Your task to perform on an android device: all mails in gmail Image 0: 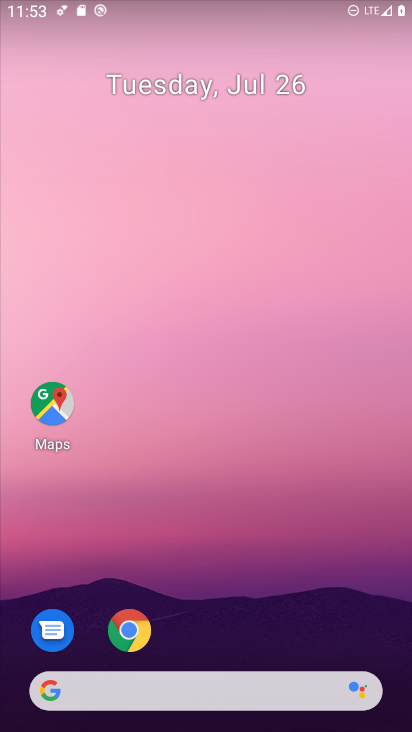
Step 0: drag from (387, 643) to (306, 222)
Your task to perform on an android device: all mails in gmail Image 1: 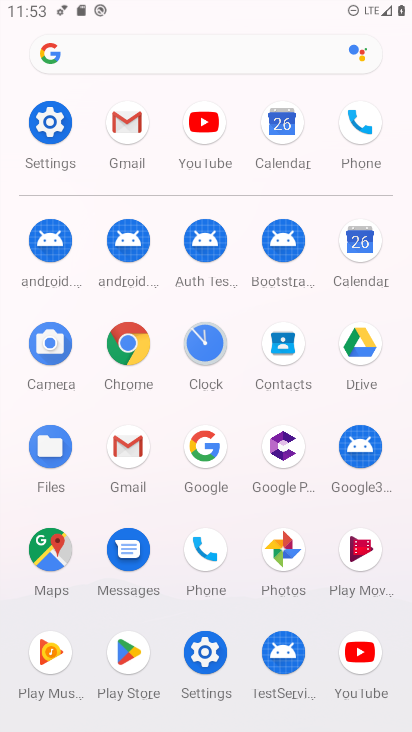
Step 1: click (128, 447)
Your task to perform on an android device: all mails in gmail Image 2: 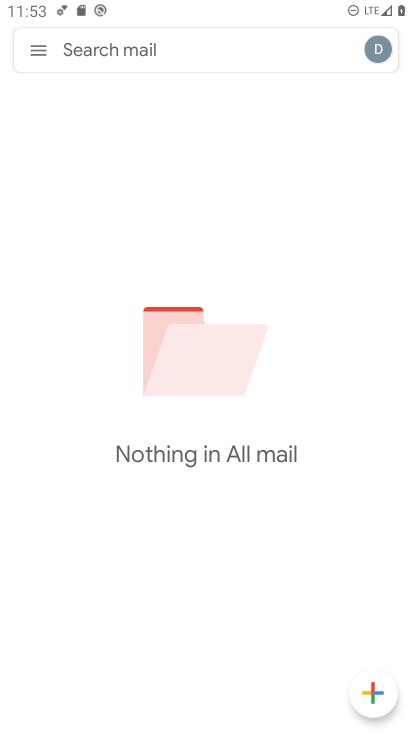
Step 2: task complete